Your task to perform on an android device: Go to wifi settings Image 0: 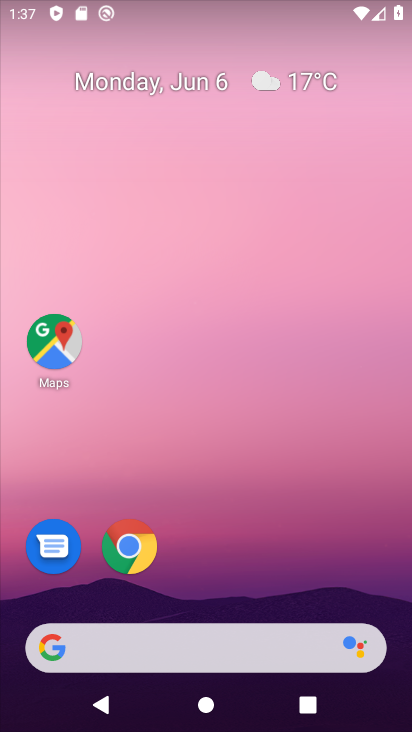
Step 0: drag from (257, 577) to (213, 168)
Your task to perform on an android device: Go to wifi settings Image 1: 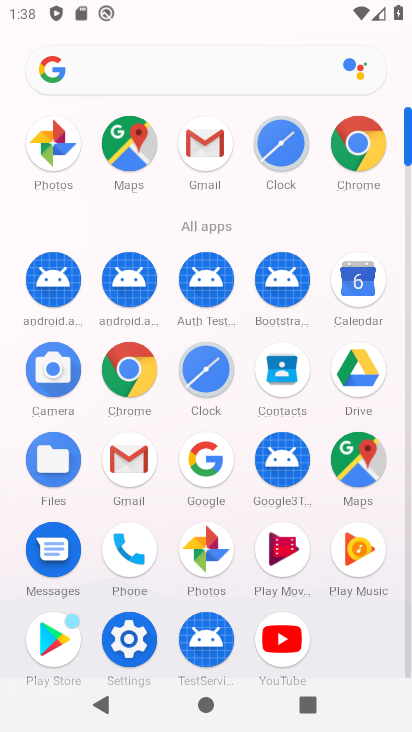
Step 1: click (125, 626)
Your task to perform on an android device: Go to wifi settings Image 2: 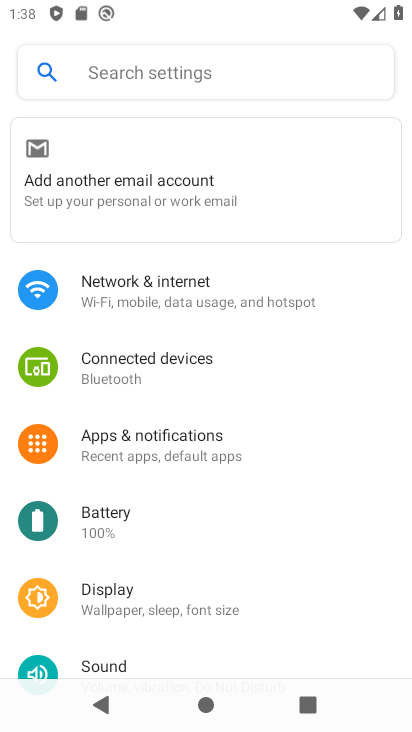
Step 2: click (167, 285)
Your task to perform on an android device: Go to wifi settings Image 3: 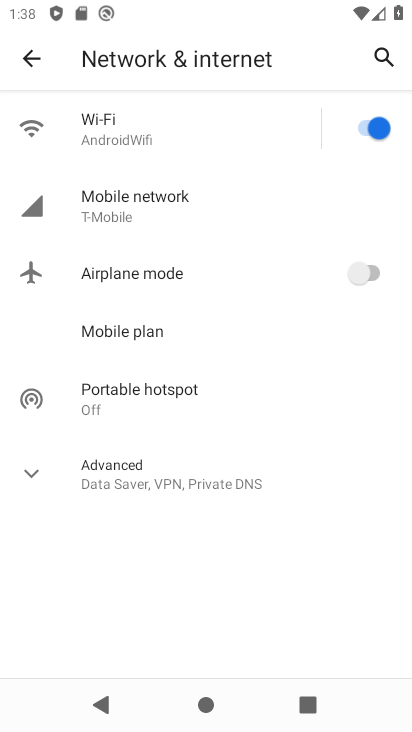
Step 3: click (202, 122)
Your task to perform on an android device: Go to wifi settings Image 4: 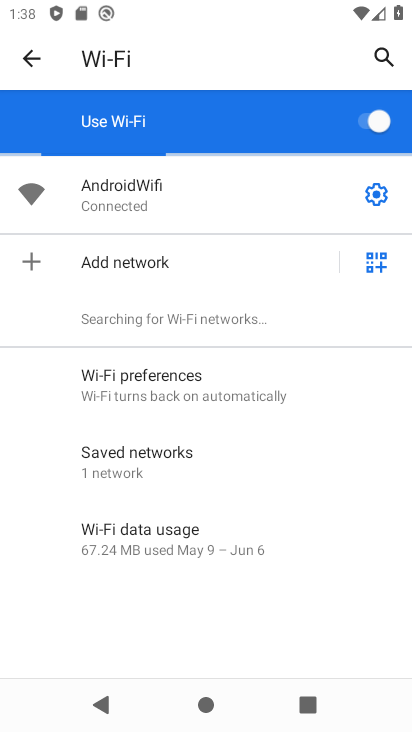
Step 4: click (385, 202)
Your task to perform on an android device: Go to wifi settings Image 5: 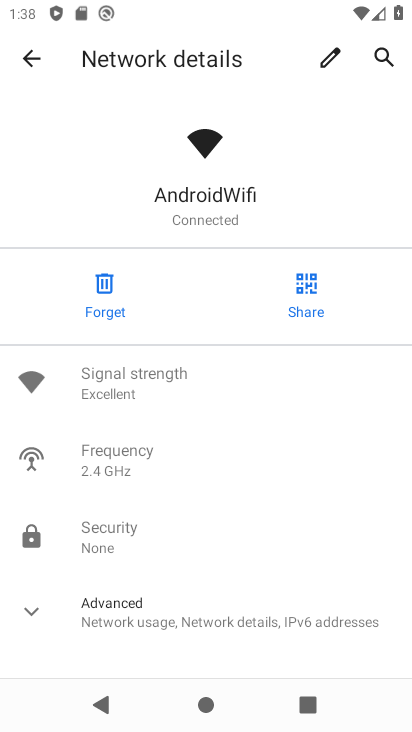
Step 5: task complete